Your task to perform on an android device: find photos in the google photos app Image 0: 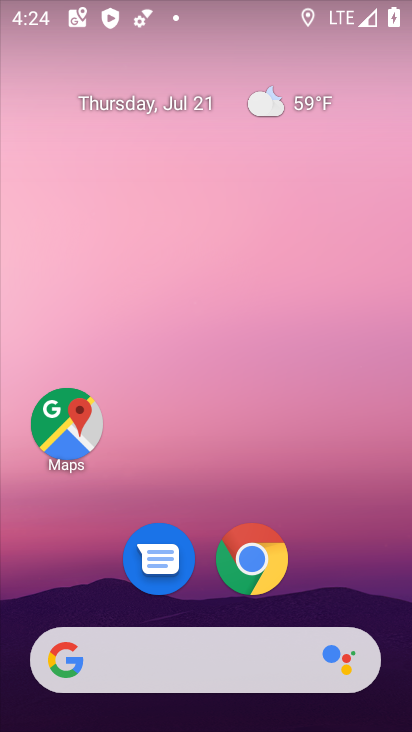
Step 0: drag from (126, 601) to (261, 4)
Your task to perform on an android device: find photos in the google photos app Image 1: 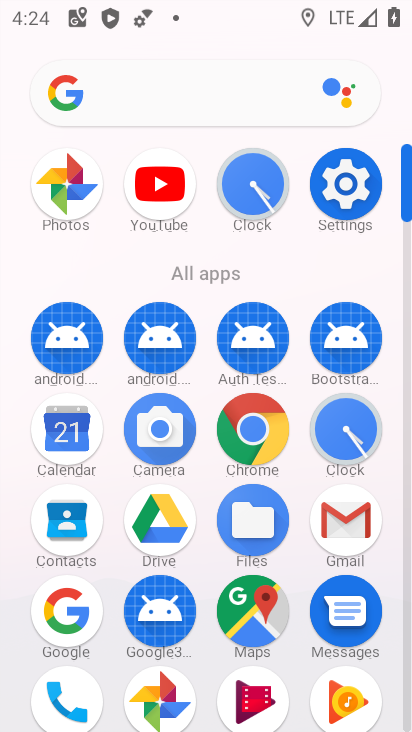
Step 1: click (169, 703)
Your task to perform on an android device: find photos in the google photos app Image 2: 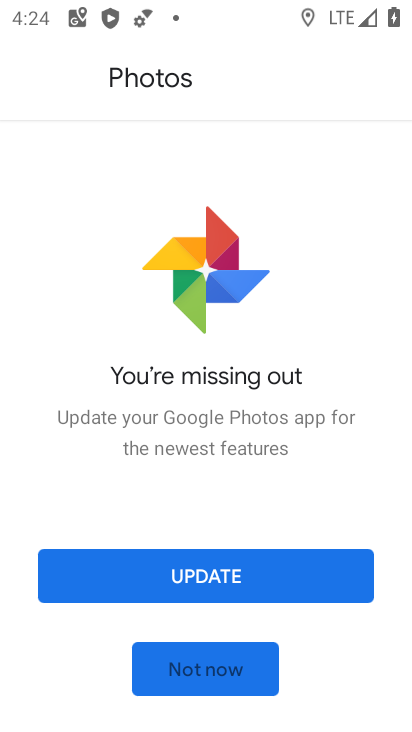
Step 2: click (195, 667)
Your task to perform on an android device: find photos in the google photos app Image 3: 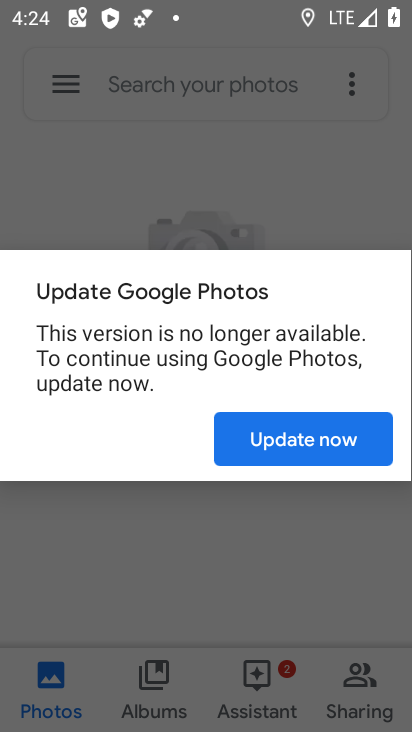
Step 3: click (255, 449)
Your task to perform on an android device: find photos in the google photos app Image 4: 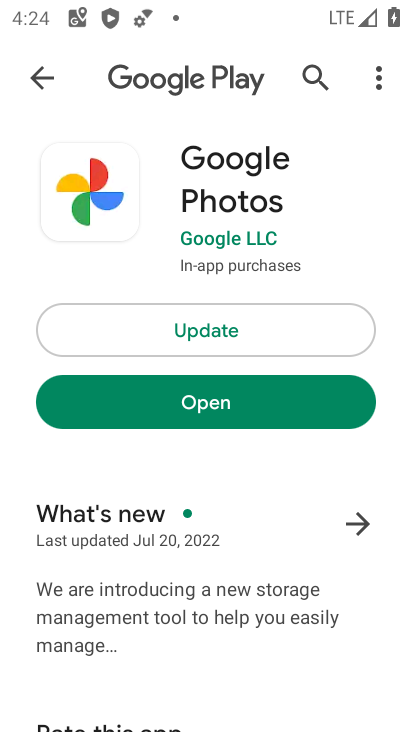
Step 4: click (213, 399)
Your task to perform on an android device: find photos in the google photos app Image 5: 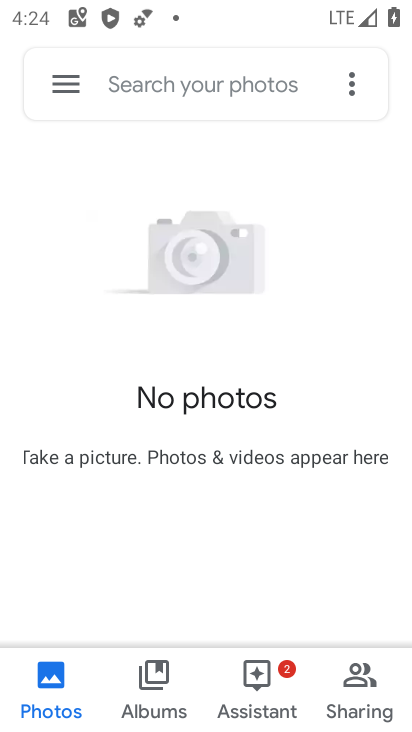
Step 5: click (49, 675)
Your task to perform on an android device: find photos in the google photos app Image 6: 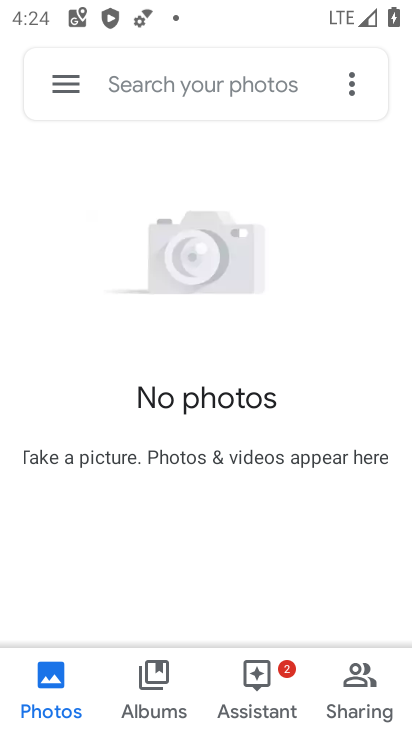
Step 6: task complete